Your task to perform on an android device: Open the Play Movies app and select the watchlist tab. Image 0: 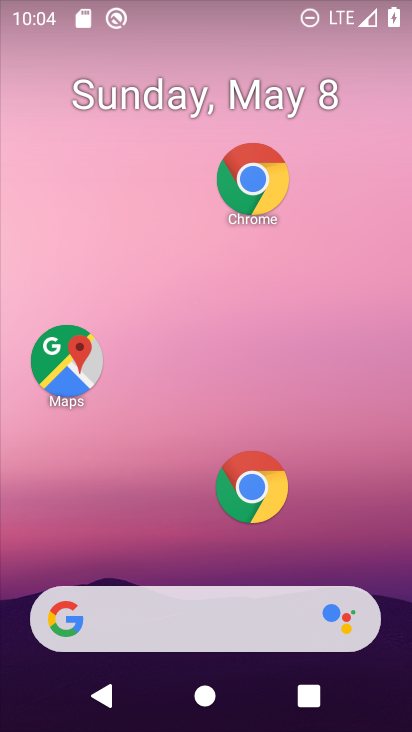
Step 0: drag from (92, 484) to (185, 37)
Your task to perform on an android device: Open the Play Movies app and select the watchlist tab. Image 1: 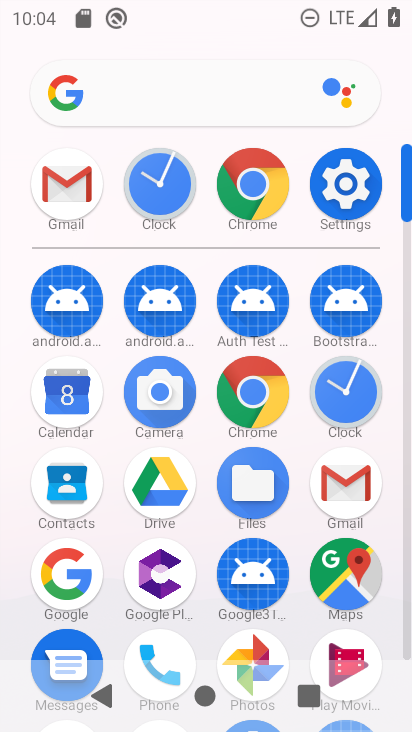
Step 1: drag from (291, 511) to (326, 348)
Your task to perform on an android device: Open the Play Movies app and select the watchlist tab. Image 2: 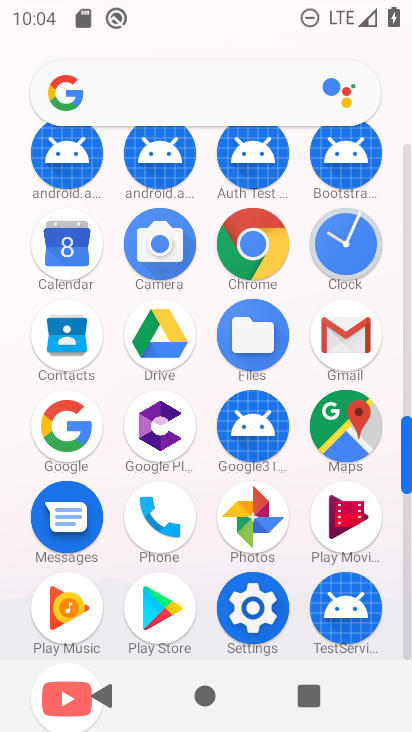
Step 2: click (347, 501)
Your task to perform on an android device: Open the Play Movies app and select the watchlist tab. Image 3: 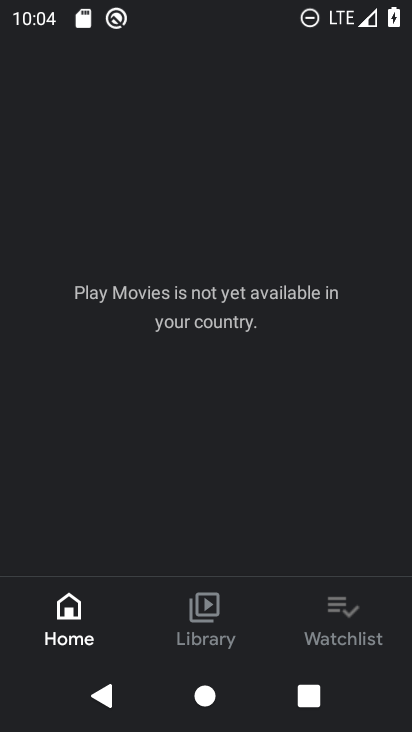
Step 3: click (348, 620)
Your task to perform on an android device: Open the Play Movies app and select the watchlist tab. Image 4: 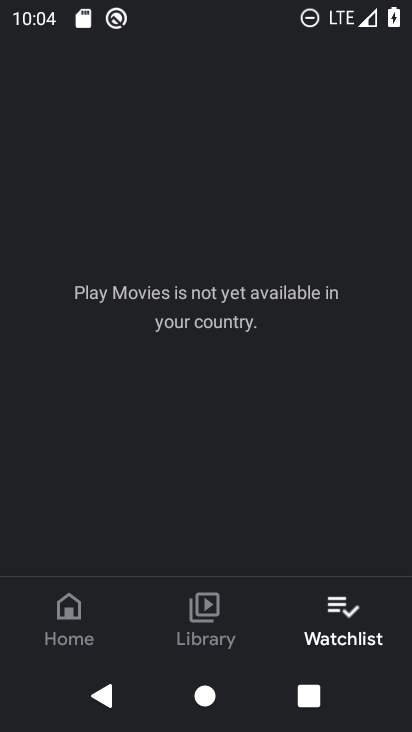
Step 4: task complete